Your task to perform on an android device: turn off notifications in google photos Image 0: 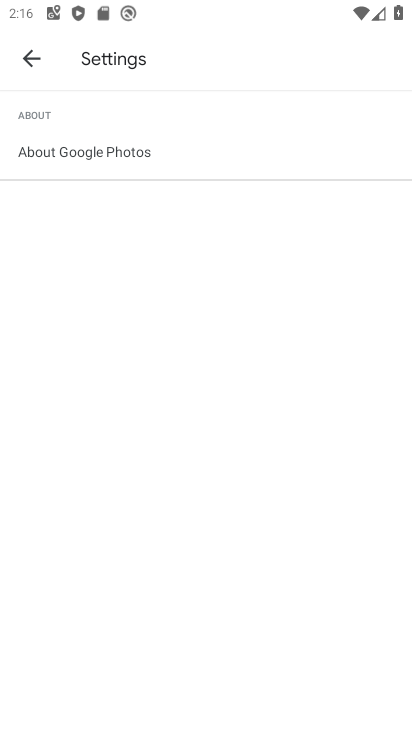
Step 0: press home button
Your task to perform on an android device: turn off notifications in google photos Image 1: 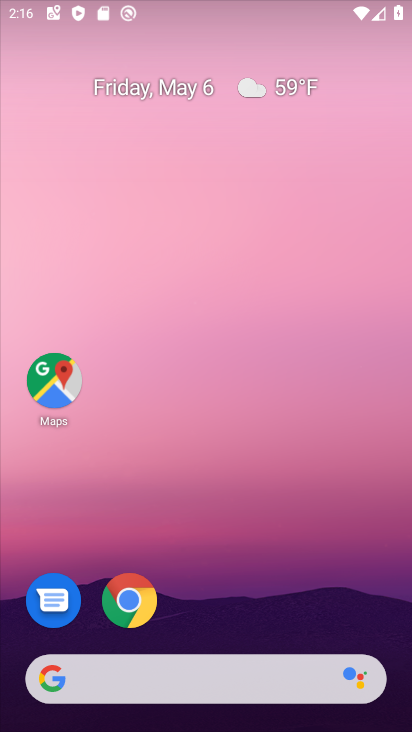
Step 1: drag from (247, 581) to (242, 32)
Your task to perform on an android device: turn off notifications in google photos Image 2: 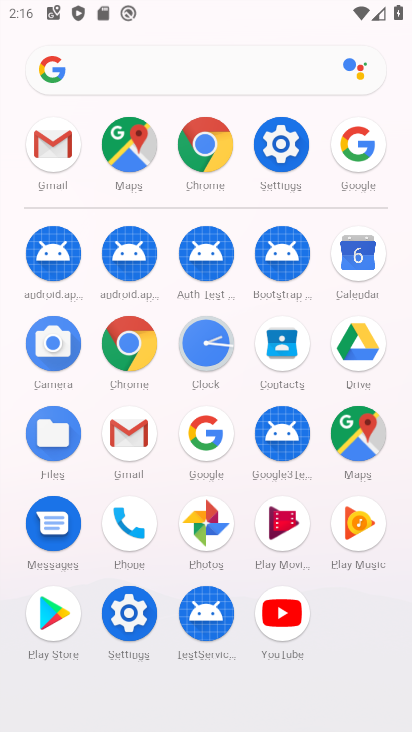
Step 2: click (214, 521)
Your task to perform on an android device: turn off notifications in google photos Image 3: 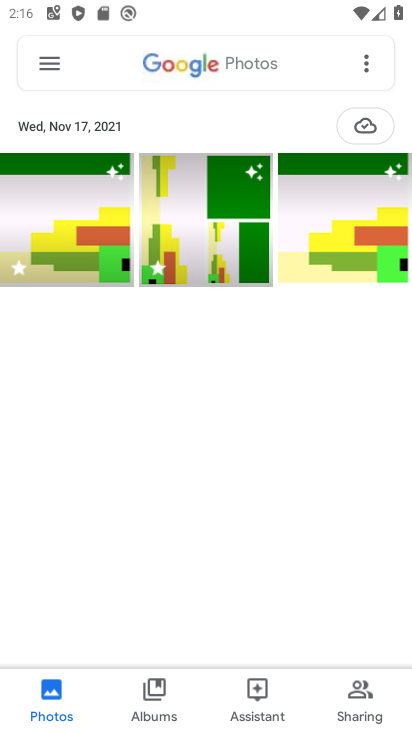
Step 3: click (38, 60)
Your task to perform on an android device: turn off notifications in google photos Image 4: 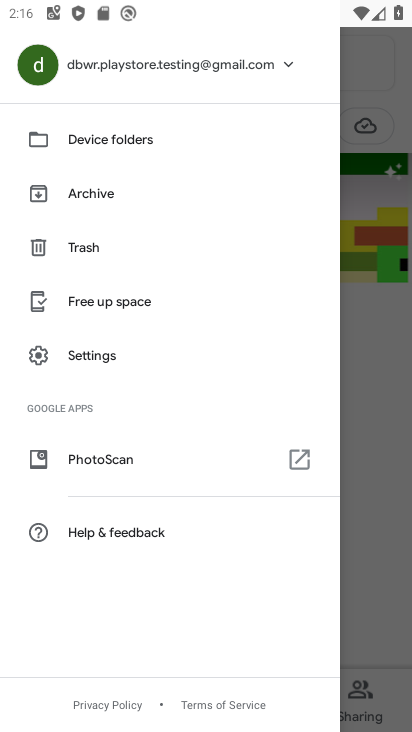
Step 4: click (95, 359)
Your task to perform on an android device: turn off notifications in google photos Image 5: 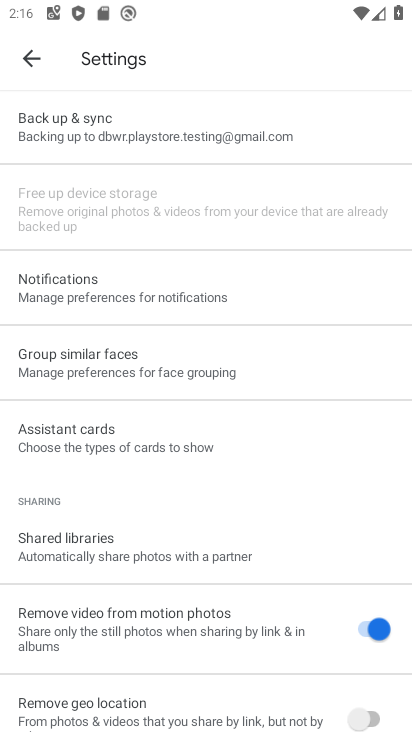
Step 5: click (94, 277)
Your task to perform on an android device: turn off notifications in google photos Image 6: 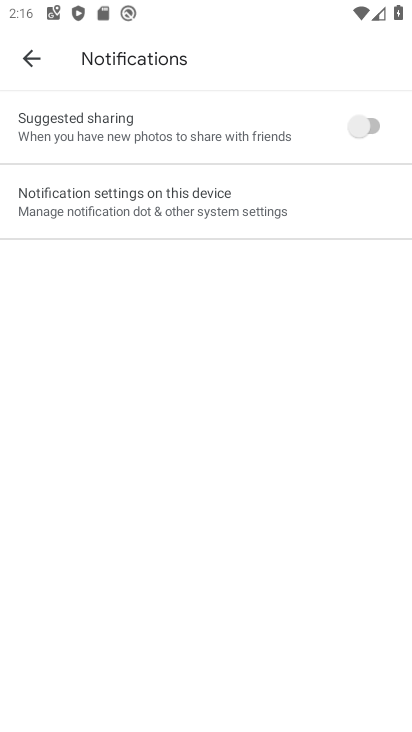
Step 6: click (102, 210)
Your task to perform on an android device: turn off notifications in google photos Image 7: 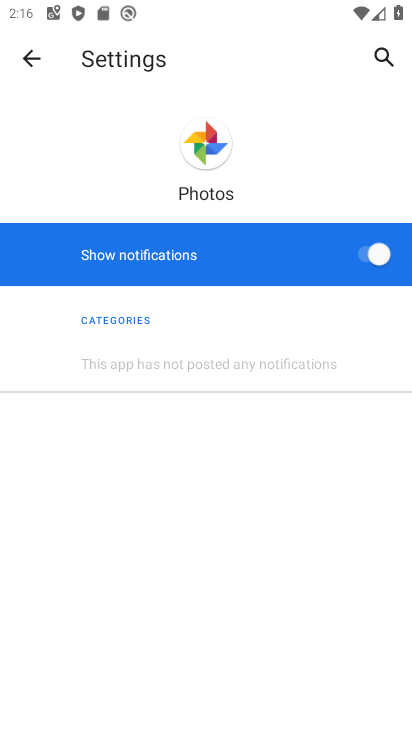
Step 7: click (368, 248)
Your task to perform on an android device: turn off notifications in google photos Image 8: 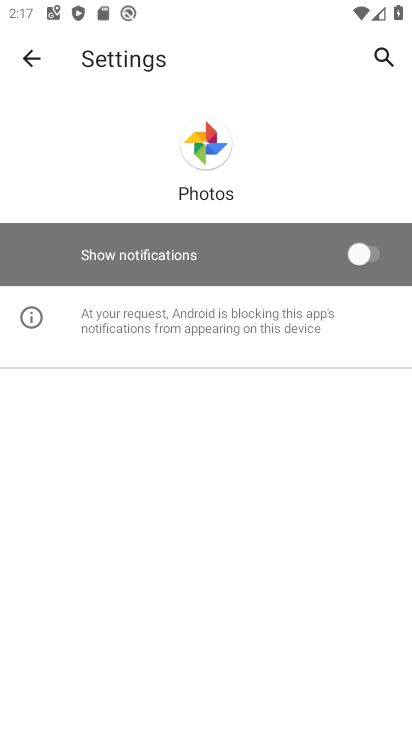
Step 8: task complete